Your task to perform on an android device: Is it going to rain tomorrow? Image 0: 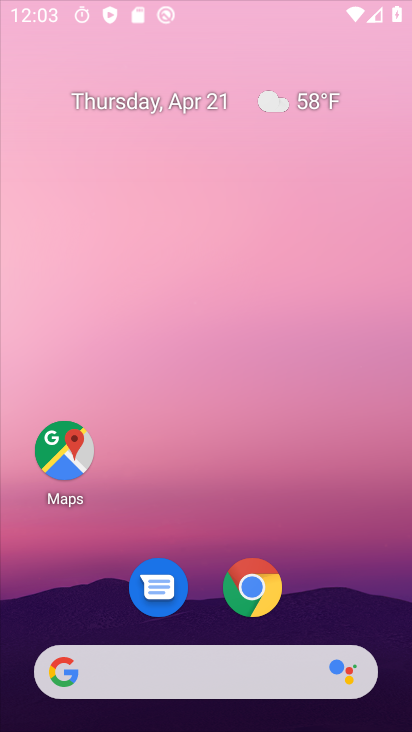
Step 0: drag from (295, 6) to (388, 7)
Your task to perform on an android device: Is it going to rain tomorrow? Image 1: 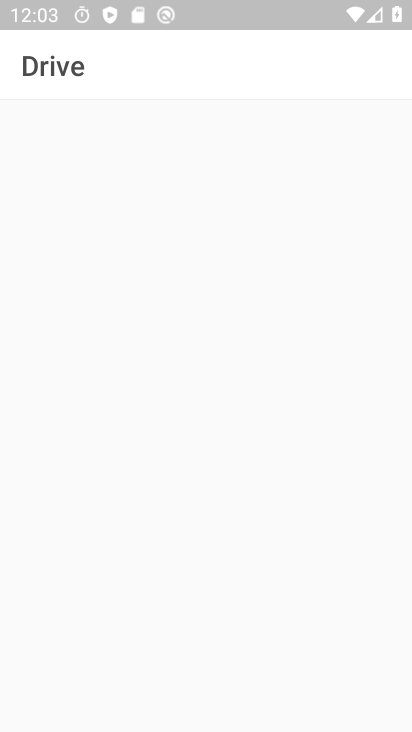
Step 1: press home button
Your task to perform on an android device: Is it going to rain tomorrow? Image 2: 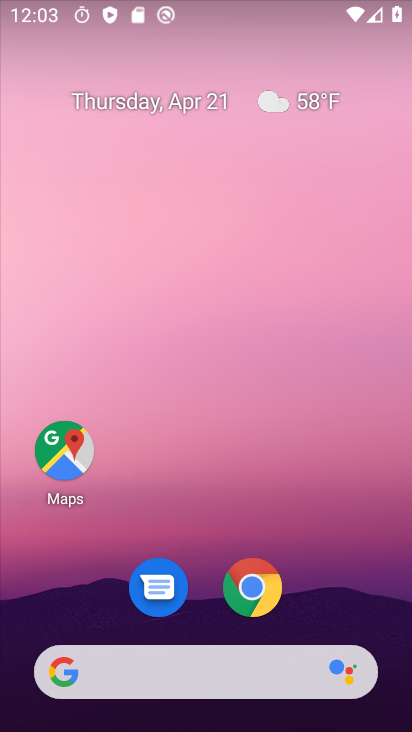
Step 2: click (317, 98)
Your task to perform on an android device: Is it going to rain tomorrow? Image 3: 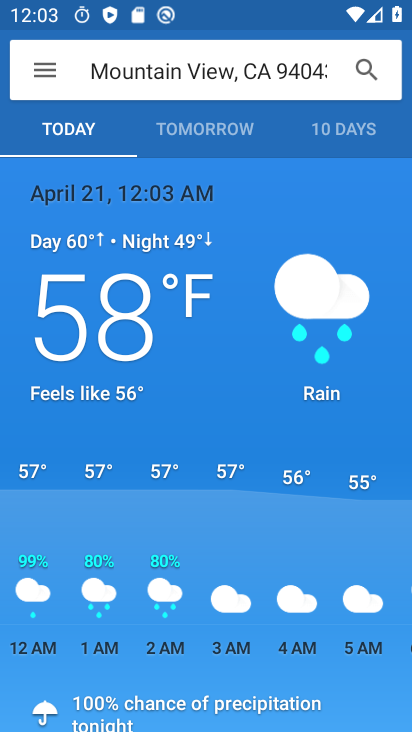
Step 3: click (213, 122)
Your task to perform on an android device: Is it going to rain tomorrow? Image 4: 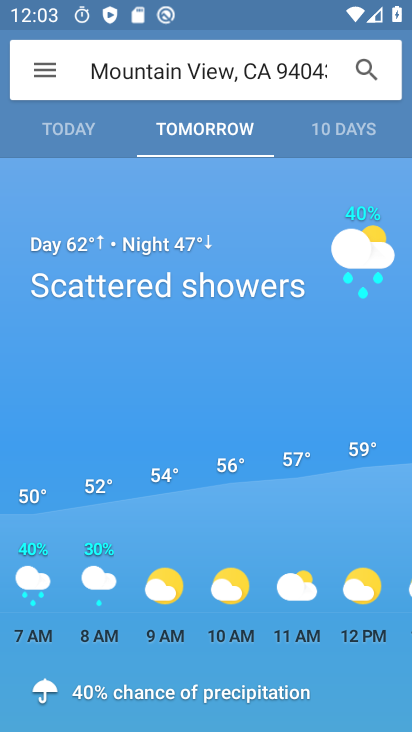
Step 4: task complete